Your task to perform on an android device: delete the emails in spam in the gmail app Image 0: 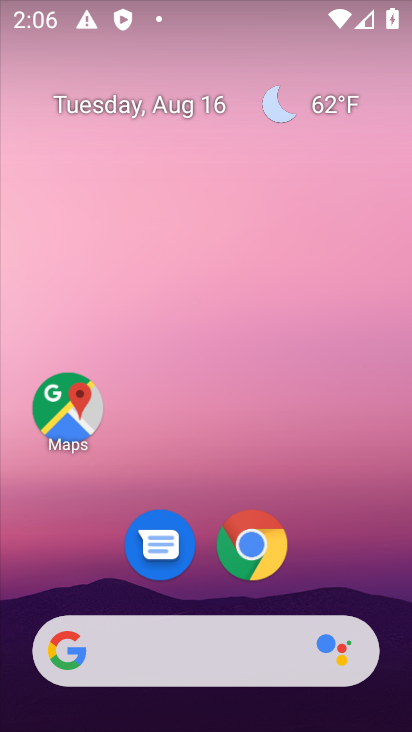
Step 0: drag from (218, 613) to (231, 259)
Your task to perform on an android device: delete the emails in spam in the gmail app Image 1: 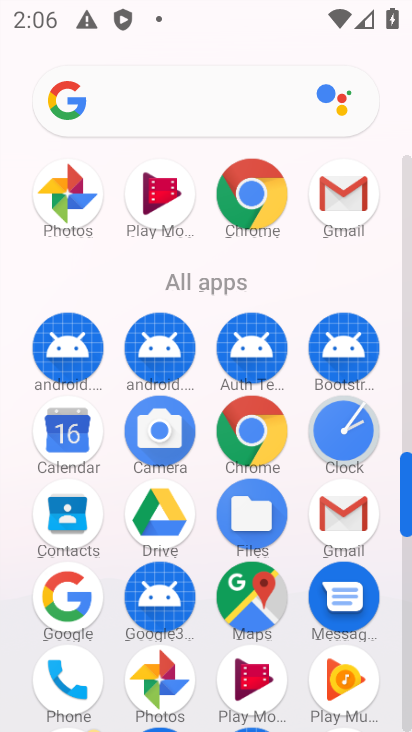
Step 1: click (343, 201)
Your task to perform on an android device: delete the emails in spam in the gmail app Image 2: 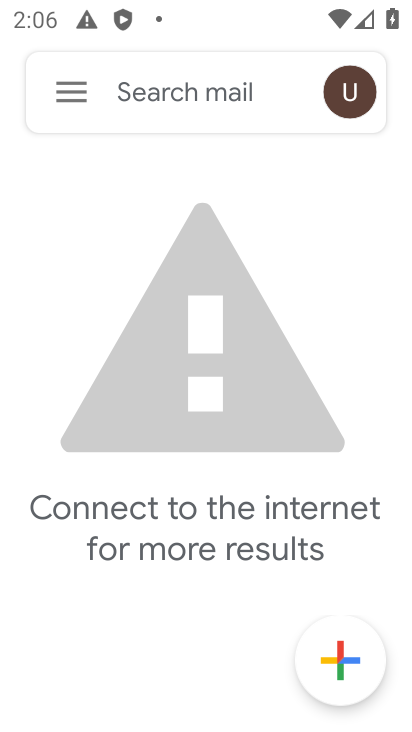
Step 2: click (79, 86)
Your task to perform on an android device: delete the emails in spam in the gmail app Image 3: 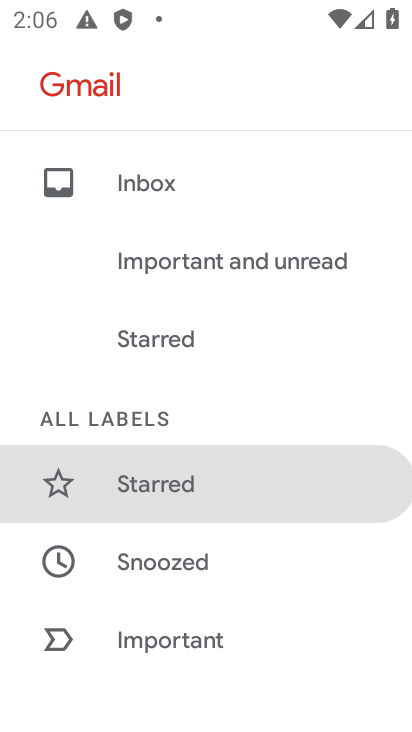
Step 3: drag from (164, 609) to (214, 319)
Your task to perform on an android device: delete the emails in spam in the gmail app Image 4: 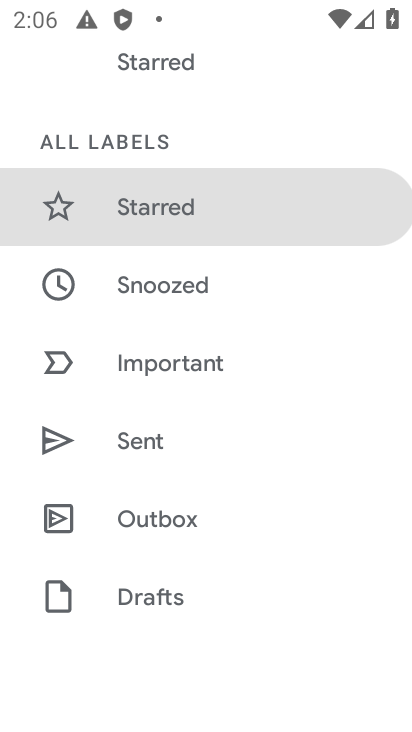
Step 4: drag from (150, 613) to (188, 322)
Your task to perform on an android device: delete the emails in spam in the gmail app Image 5: 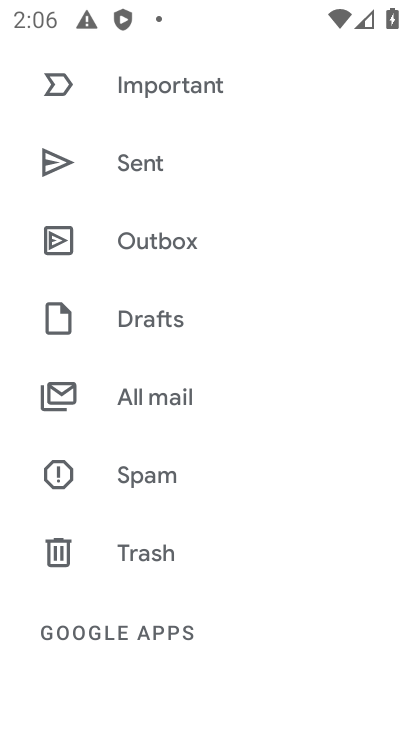
Step 5: click (136, 459)
Your task to perform on an android device: delete the emails in spam in the gmail app Image 6: 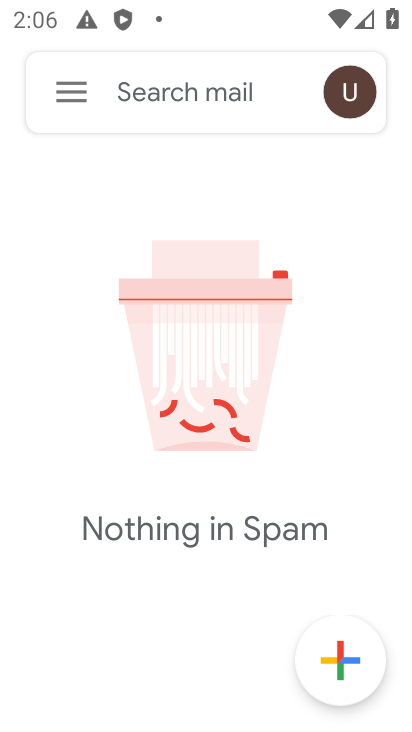
Step 6: task complete